Your task to perform on an android device: find which apps use the phone's location Image 0: 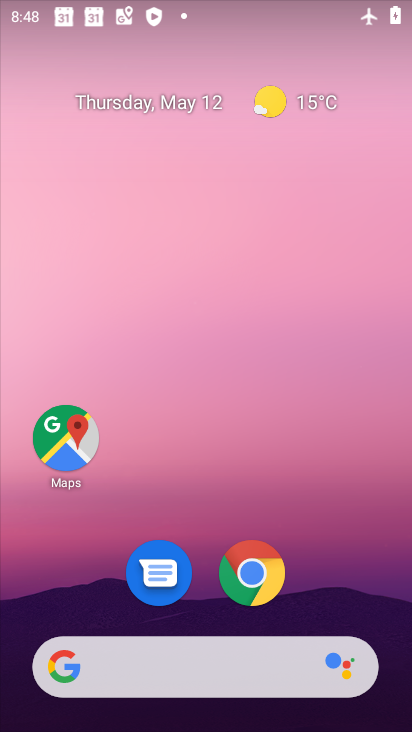
Step 0: drag from (315, 548) to (194, 245)
Your task to perform on an android device: find which apps use the phone's location Image 1: 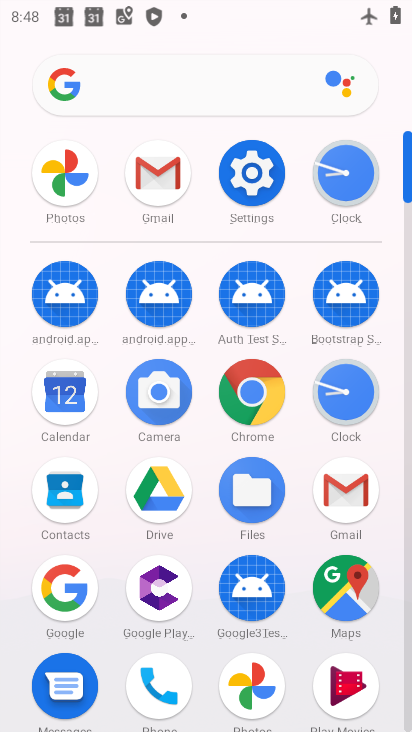
Step 1: click (247, 172)
Your task to perform on an android device: find which apps use the phone's location Image 2: 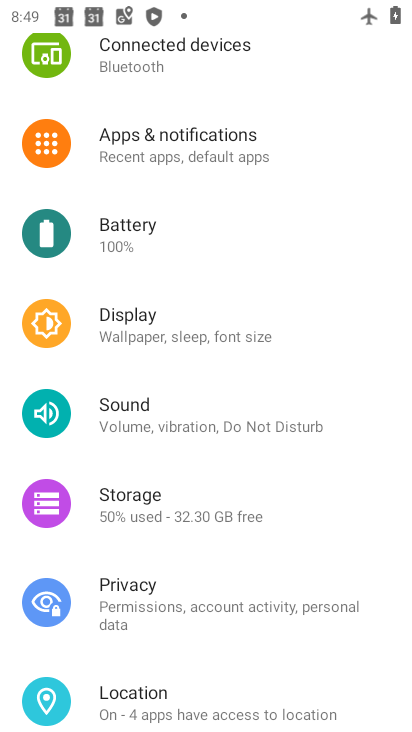
Step 2: click (138, 693)
Your task to perform on an android device: find which apps use the phone's location Image 3: 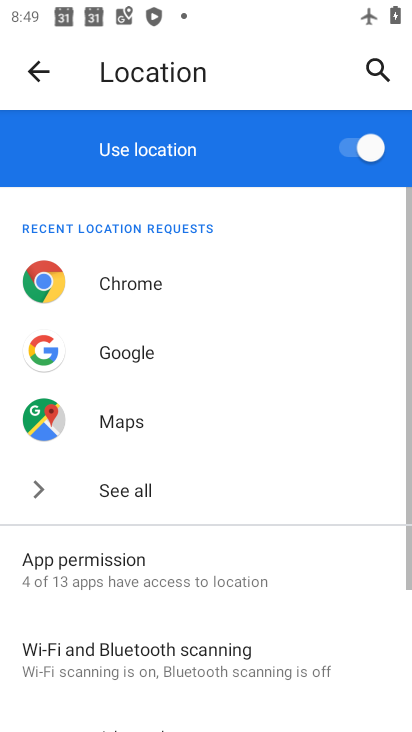
Step 3: click (125, 494)
Your task to perform on an android device: find which apps use the phone's location Image 4: 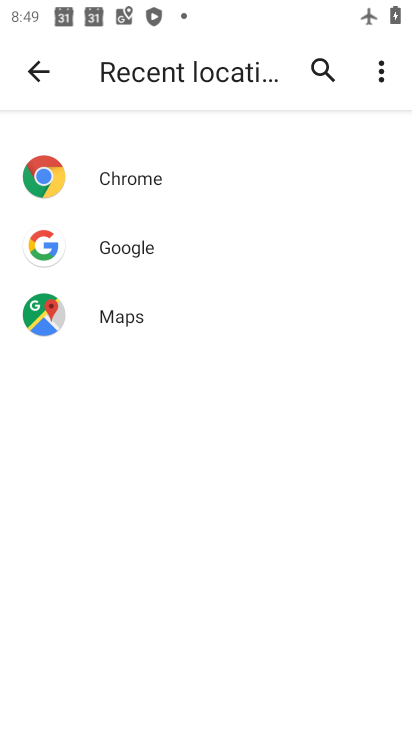
Step 4: task complete